Your task to perform on an android device: Go to sound settings Image 0: 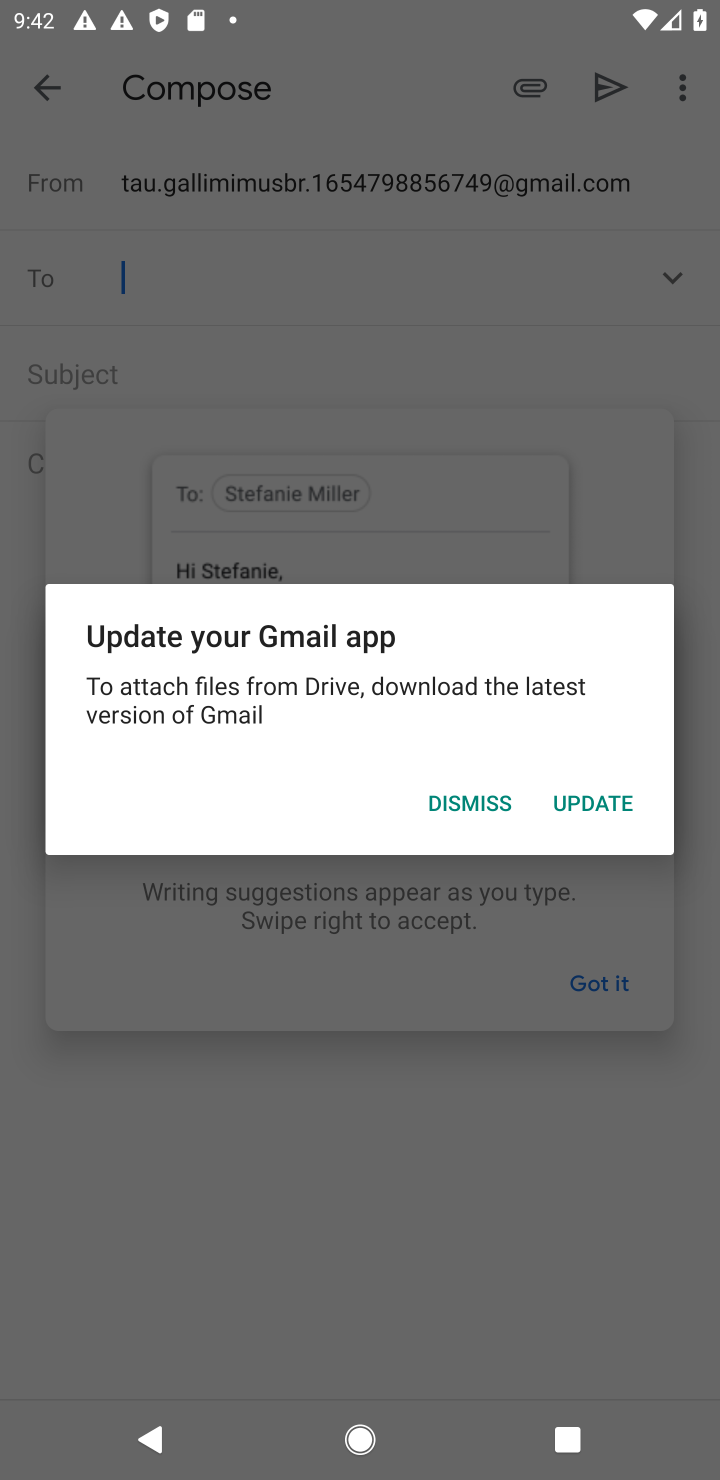
Step 0: press back button
Your task to perform on an android device: Go to sound settings Image 1: 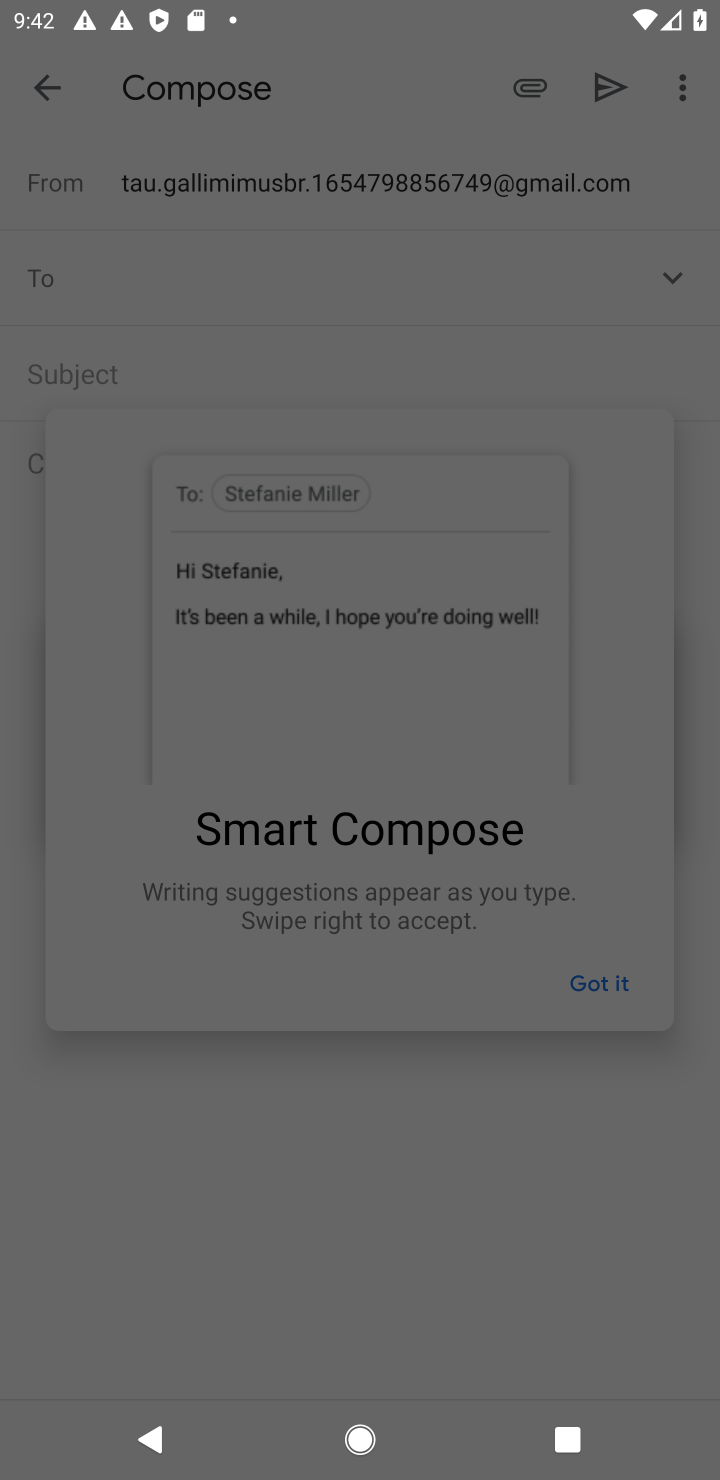
Step 1: press home button
Your task to perform on an android device: Go to sound settings Image 2: 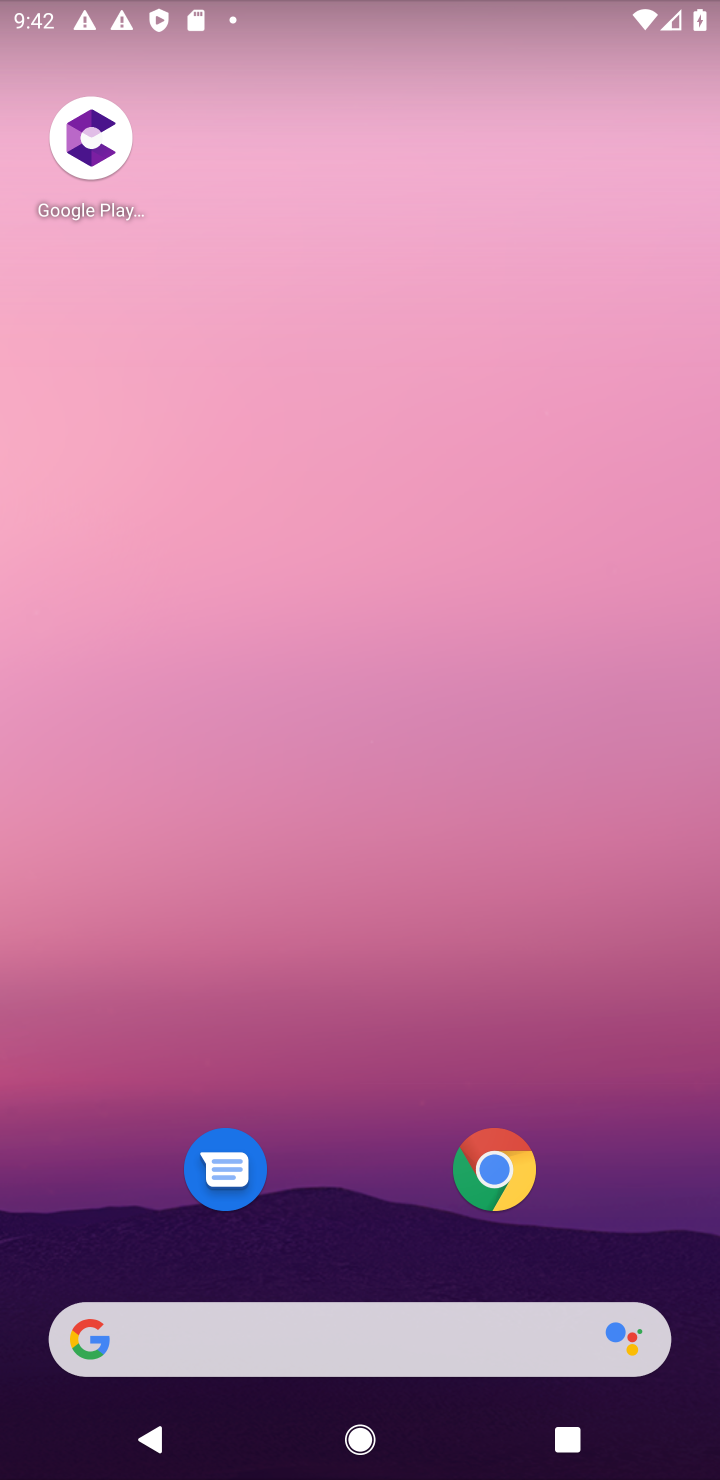
Step 2: drag from (293, 880) to (441, 3)
Your task to perform on an android device: Go to sound settings Image 3: 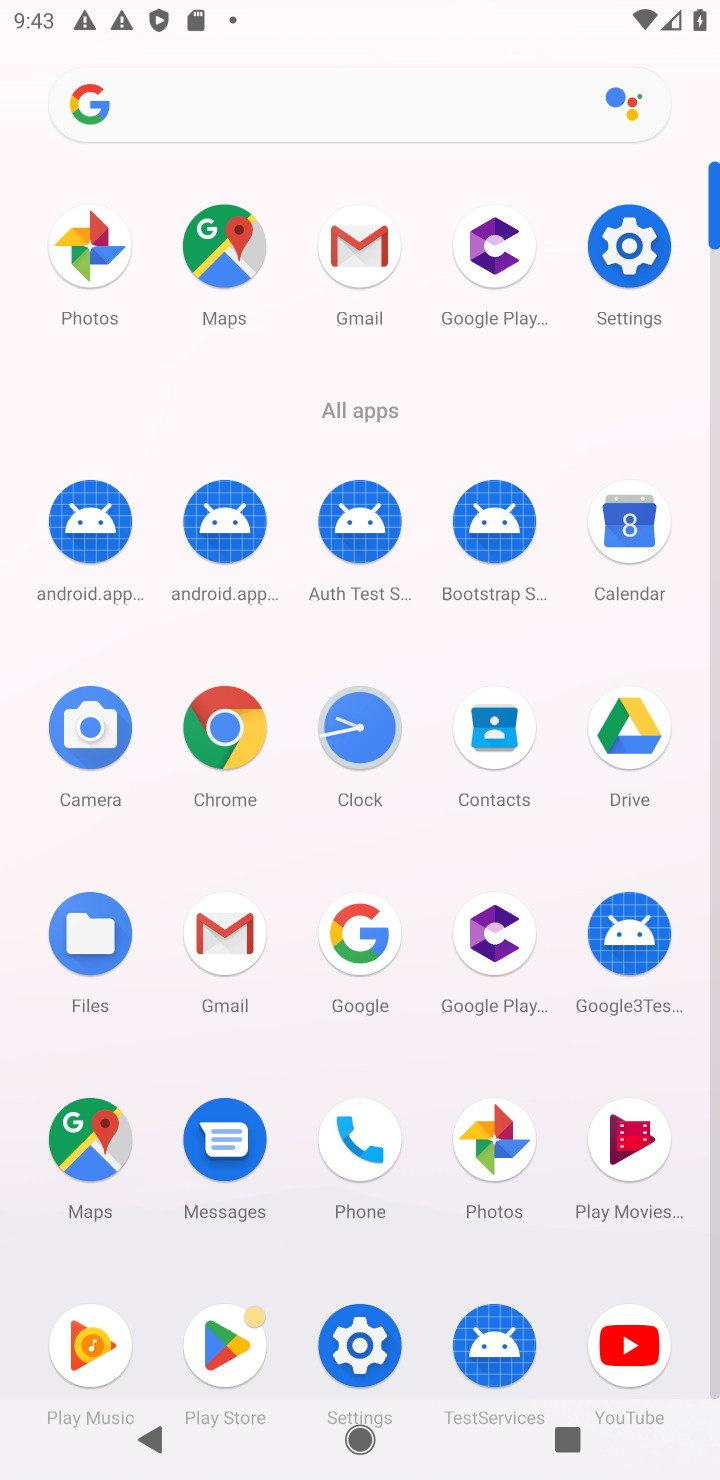
Step 3: click (650, 263)
Your task to perform on an android device: Go to sound settings Image 4: 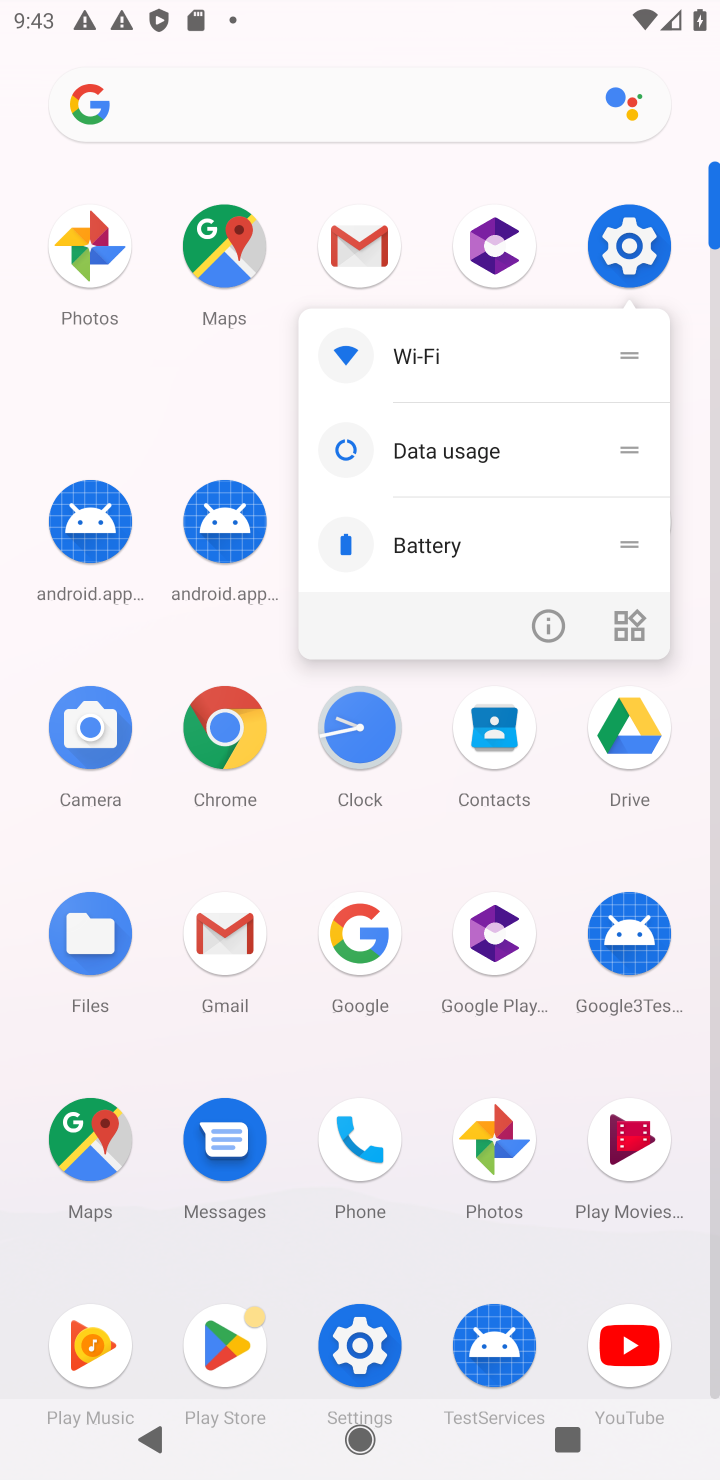
Step 4: click (627, 260)
Your task to perform on an android device: Go to sound settings Image 5: 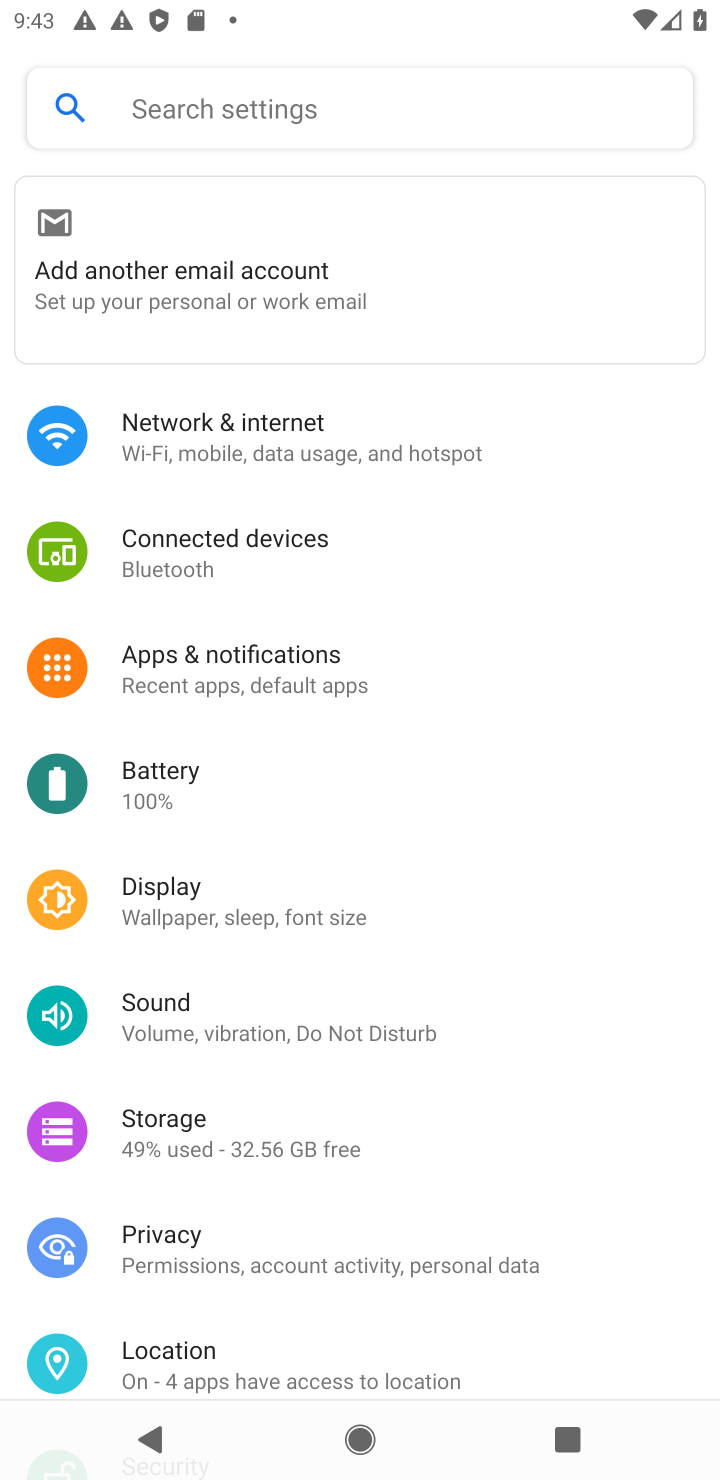
Step 5: click (171, 993)
Your task to perform on an android device: Go to sound settings Image 6: 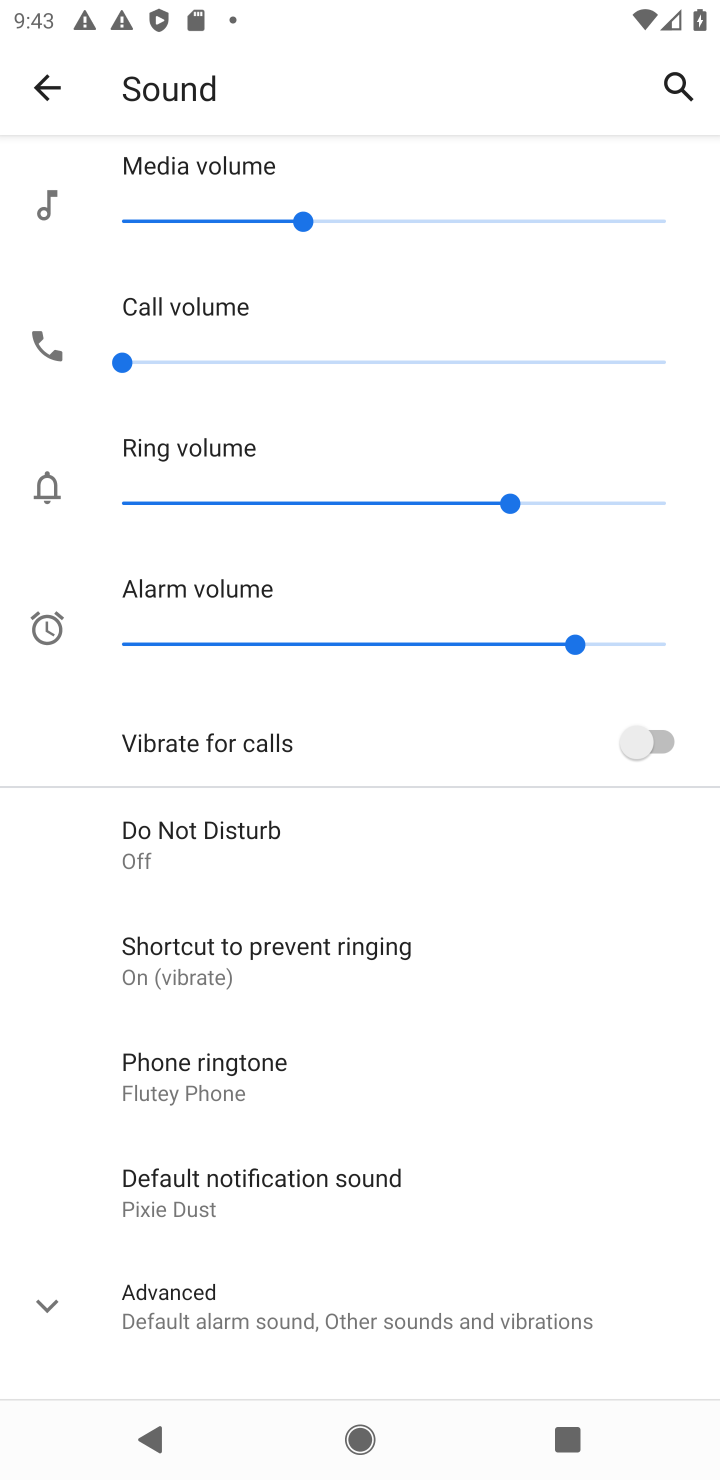
Step 6: task complete